Your task to perform on an android device: Open calendar and show me the third week of next month Image 0: 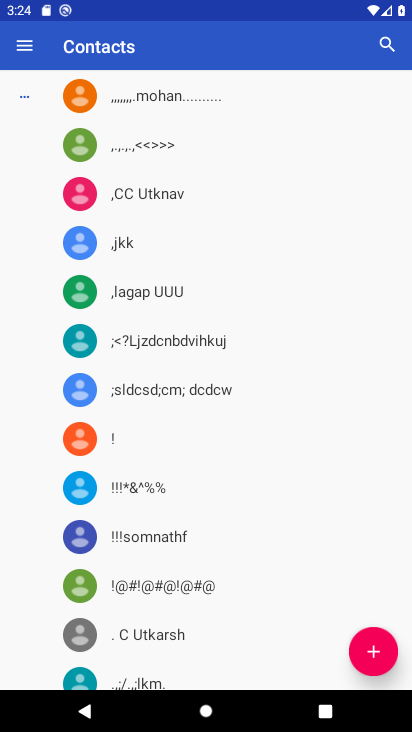
Step 0: press home button
Your task to perform on an android device: Open calendar and show me the third week of next month Image 1: 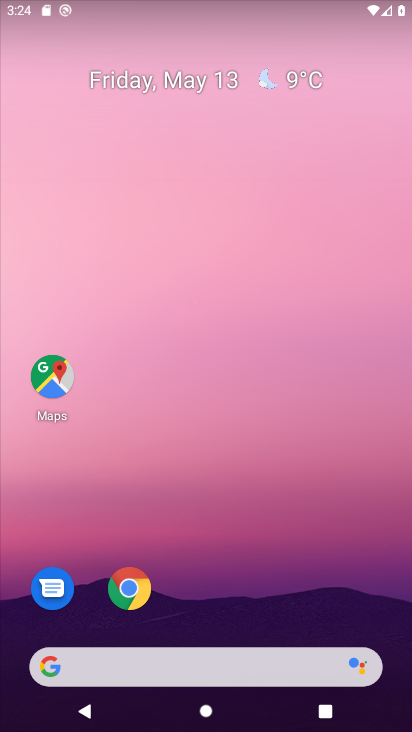
Step 1: drag from (260, 590) to (189, 7)
Your task to perform on an android device: Open calendar and show me the third week of next month Image 2: 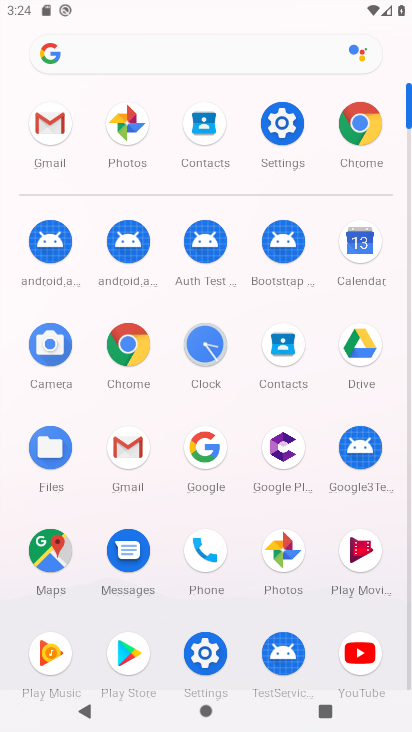
Step 2: click (352, 238)
Your task to perform on an android device: Open calendar and show me the third week of next month Image 3: 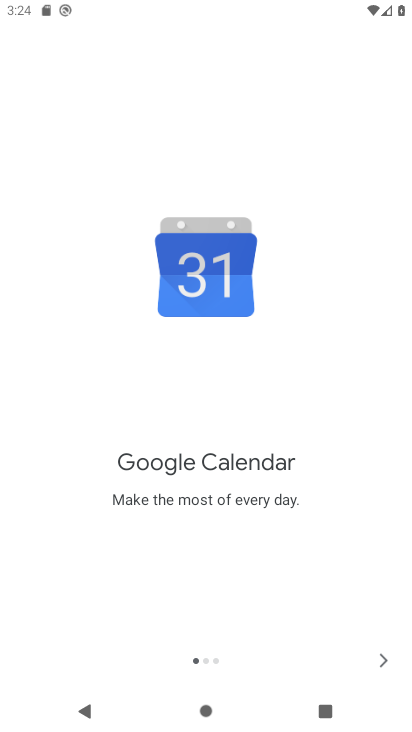
Step 3: click (384, 660)
Your task to perform on an android device: Open calendar and show me the third week of next month Image 4: 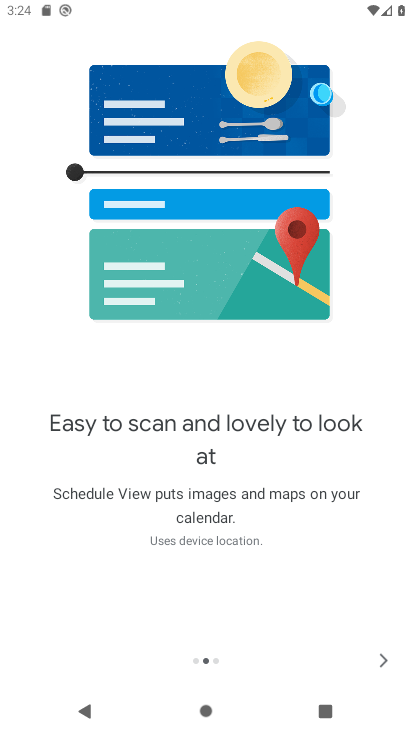
Step 4: click (384, 660)
Your task to perform on an android device: Open calendar and show me the third week of next month Image 5: 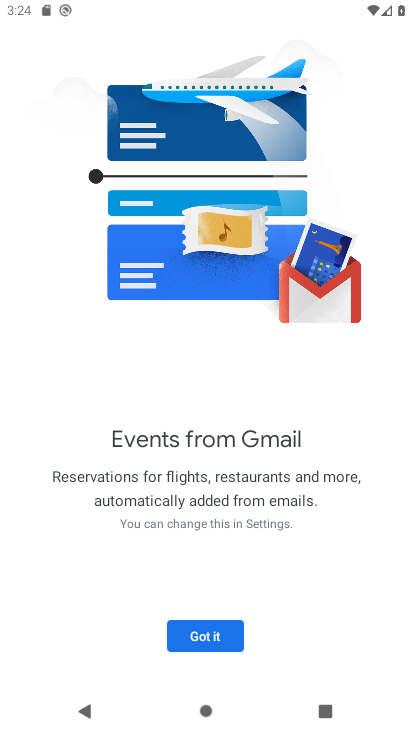
Step 5: click (214, 640)
Your task to perform on an android device: Open calendar and show me the third week of next month Image 6: 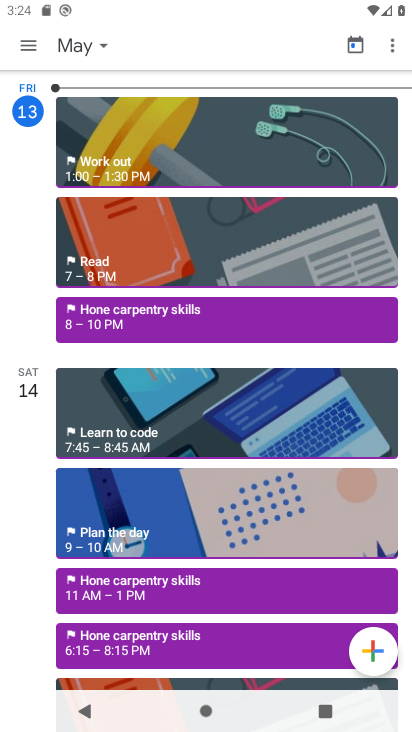
Step 6: click (76, 52)
Your task to perform on an android device: Open calendar and show me the third week of next month Image 7: 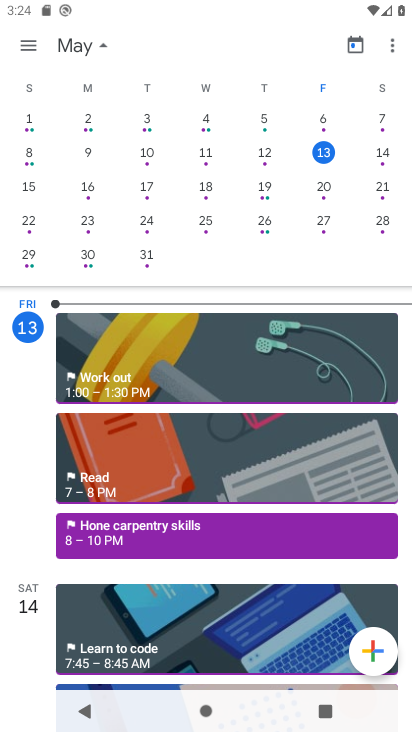
Step 7: drag from (347, 159) to (16, 138)
Your task to perform on an android device: Open calendar and show me the third week of next month Image 8: 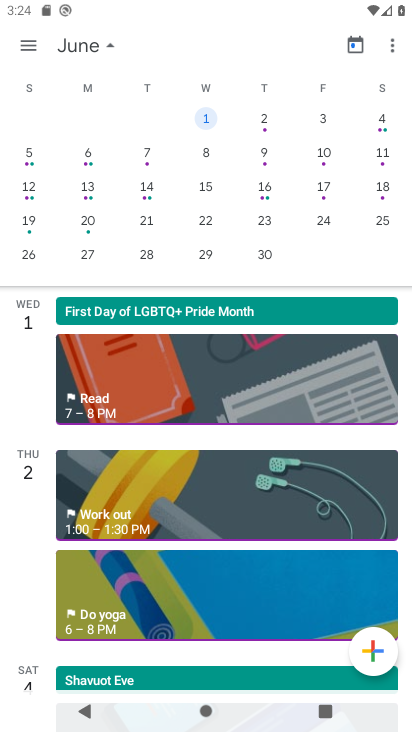
Step 8: click (88, 219)
Your task to perform on an android device: Open calendar and show me the third week of next month Image 9: 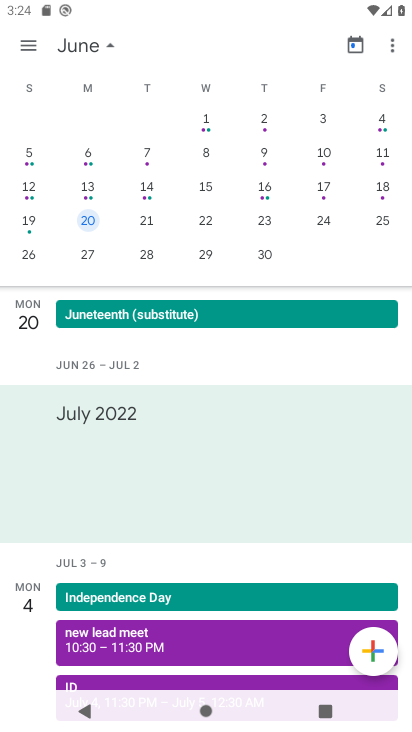
Step 9: click (34, 44)
Your task to perform on an android device: Open calendar and show me the third week of next month Image 10: 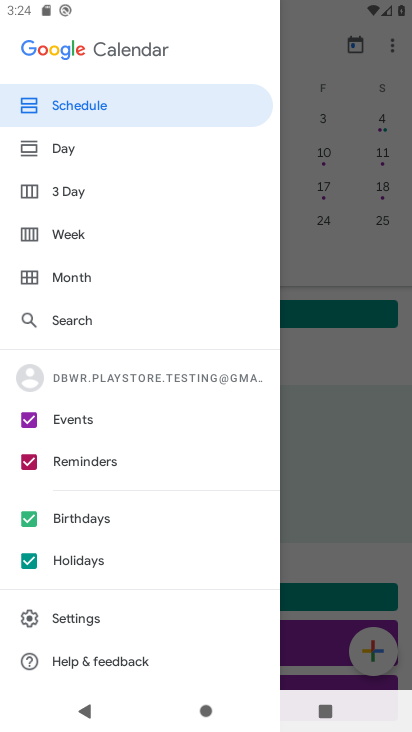
Step 10: click (99, 233)
Your task to perform on an android device: Open calendar and show me the third week of next month Image 11: 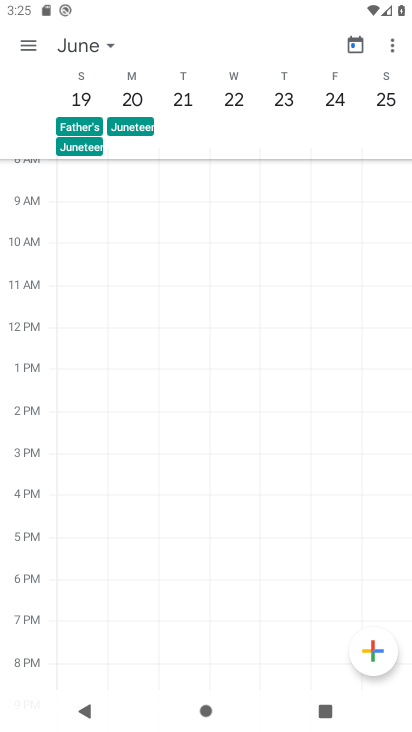
Step 11: task complete